Your task to perform on an android device: turn off priority inbox in the gmail app Image 0: 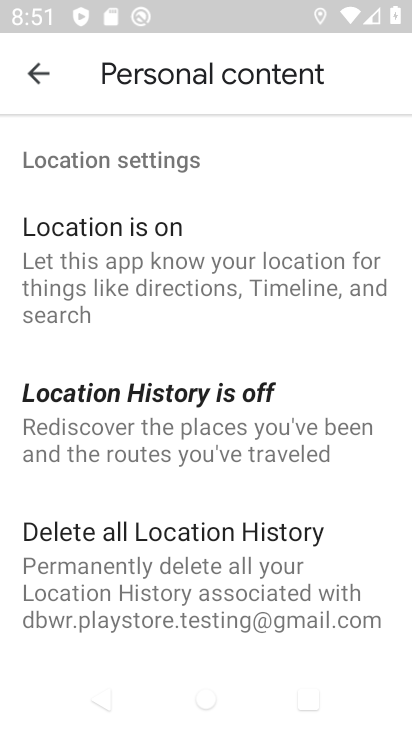
Step 0: press home button
Your task to perform on an android device: turn off priority inbox in the gmail app Image 1: 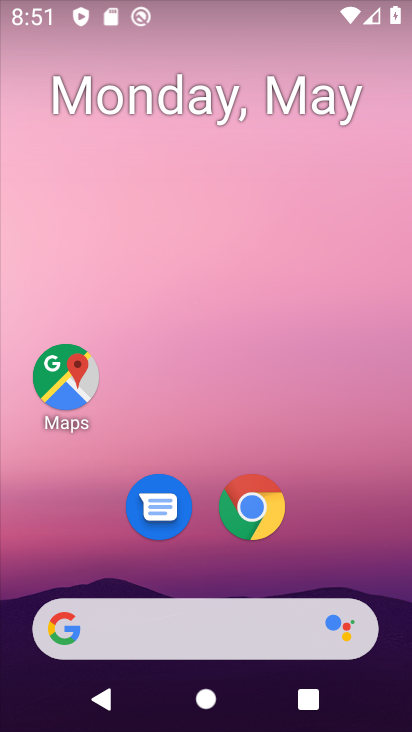
Step 1: drag from (306, 116) to (364, 16)
Your task to perform on an android device: turn off priority inbox in the gmail app Image 2: 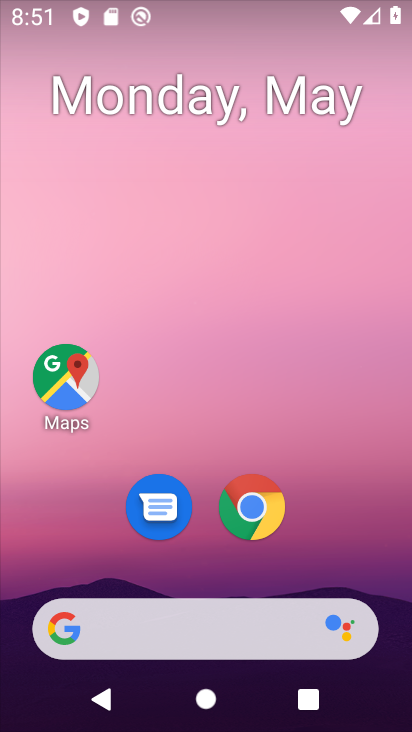
Step 2: drag from (206, 566) to (331, 2)
Your task to perform on an android device: turn off priority inbox in the gmail app Image 3: 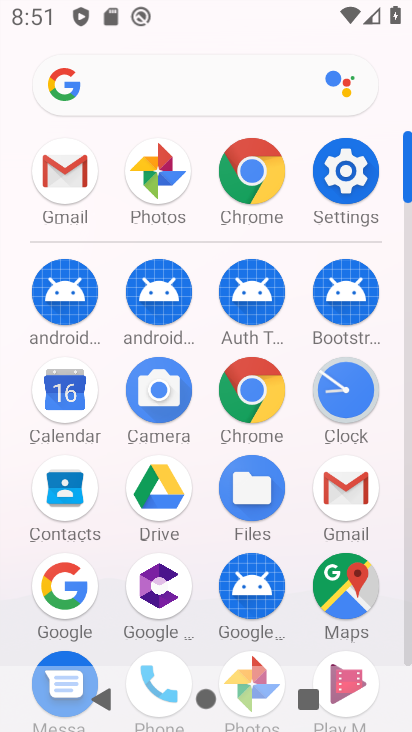
Step 3: click (356, 501)
Your task to perform on an android device: turn off priority inbox in the gmail app Image 4: 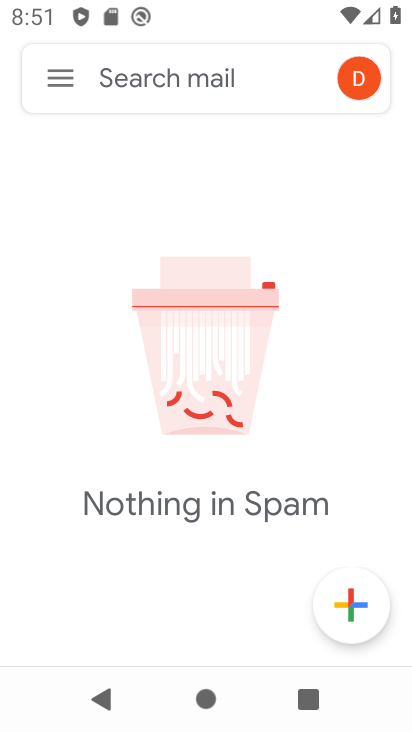
Step 4: click (63, 77)
Your task to perform on an android device: turn off priority inbox in the gmail app Image 5: 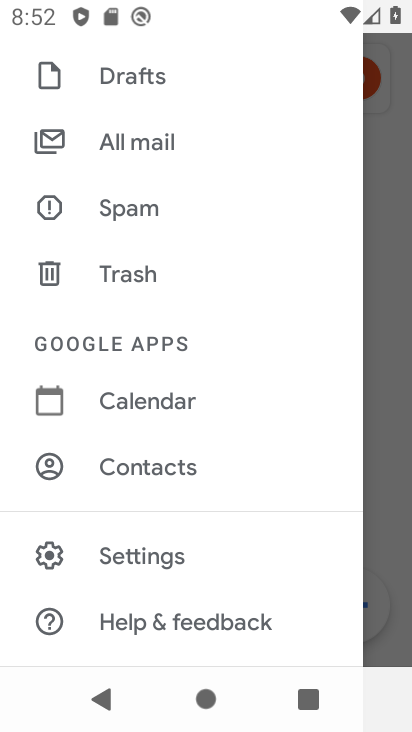
Step 5: click (163, 554)
Your task to perform on an android device: turn off priority inbox in the gmail app Image 6: 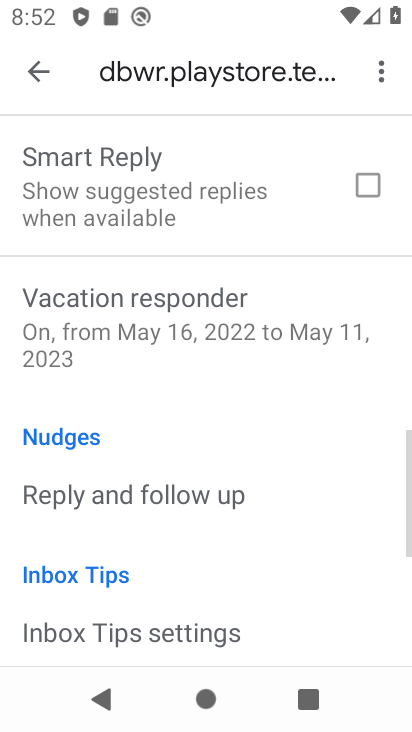
Step 6: drag from (150, 192) to (153, 607)
Your task to perform on an android device: turn off priority inbox in the gmail app Image 7: 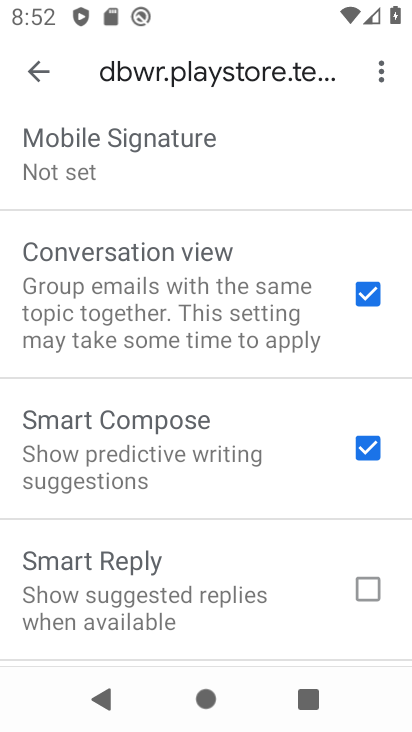
Step 7: drag from (176, 294) to (173, 720)
Your task to perform on an android device: turn off priority inbox in the gmail app Image 8: 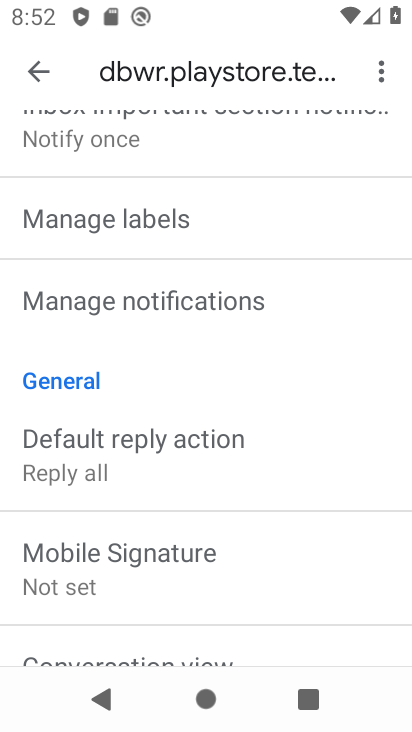
Step 8: drag from (158, 208) to (143, 720)
Your task to perform on an android device: turn off priority inbox in the gmail app Image 9: 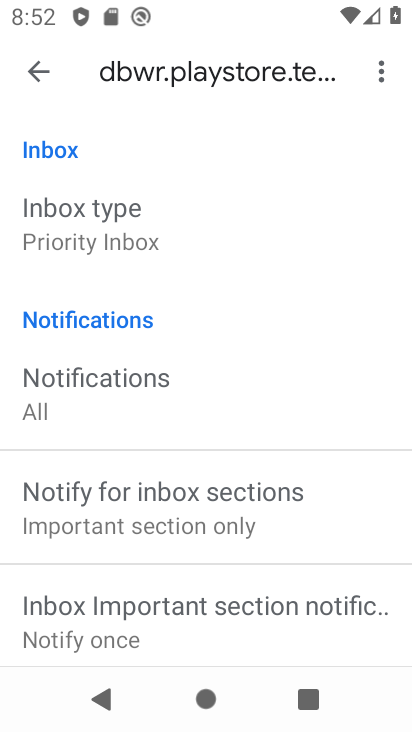
Step 9: click (129, 234)
Your task to perform on an android device: turn off priority inbox in the gmail app Image 10: 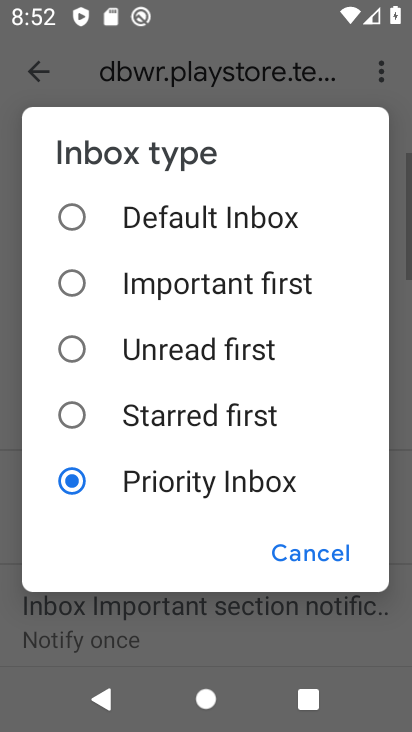
Step 10: click (109, 211)
Your task to perform on an android device: turn off priority inbox in the gmail app Image 11: 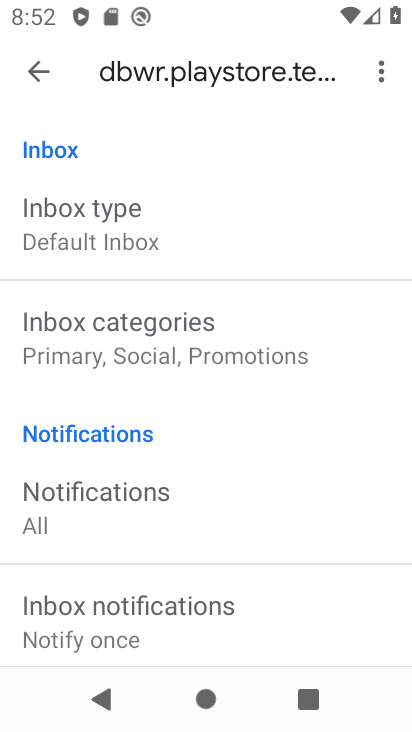
Step 11: task complete